Your task to perform on an android device: Open Android settings Image 0: 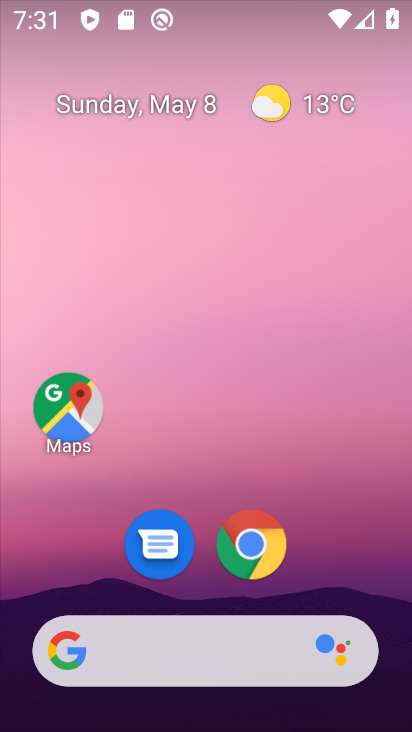
Step 0: drag from (325, 566) to (185, 259)
Your task to perform on an android device: Open Android settings Image 1: 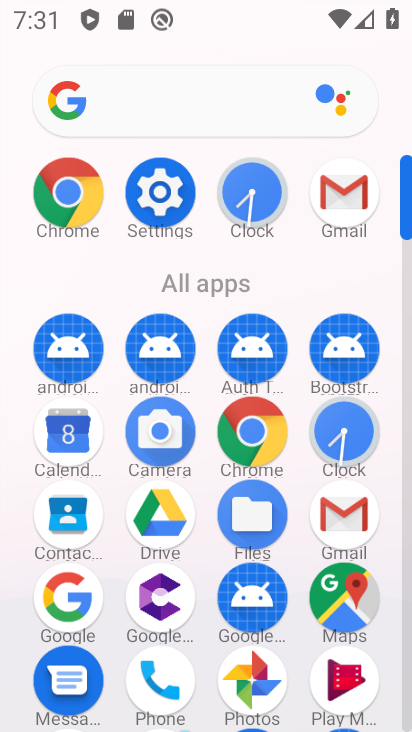
Step 1: click (153, 190)
Your task to perform on an android device: Open Android settings Image 2: 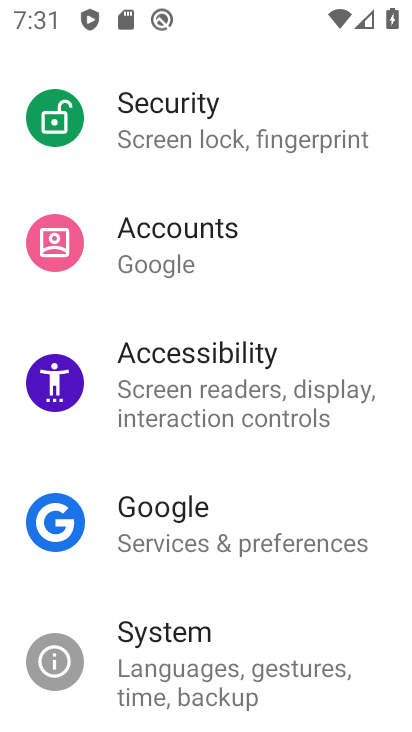
Step 2: drag from (194, 581) to (170, 318)
Your task to perform on an android device: Open Android settings Image 3: 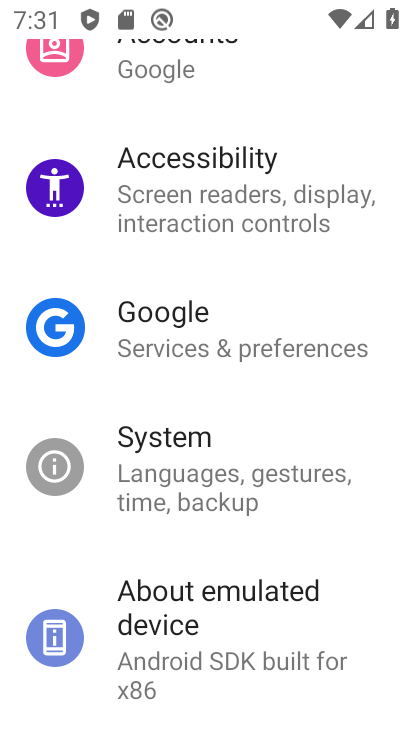
Step 3: drag from (215, 533) to (202, 177)
Your task to perform on an android device: Open Android settings Image 4: 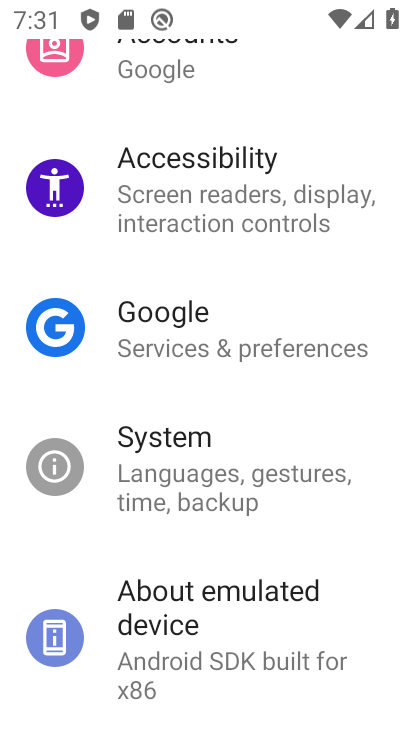
Step 4: click (182, 616)
Your task to perform on an android device: Open Android settings Image 5: 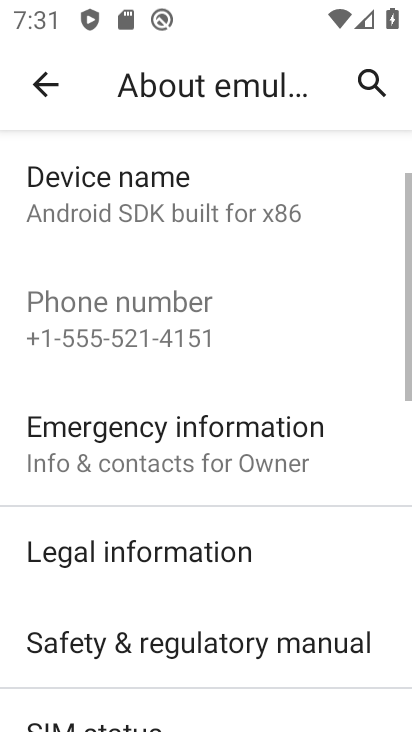
Step 5: task complete